Your task to perform on an android device: Open settings Image 0: 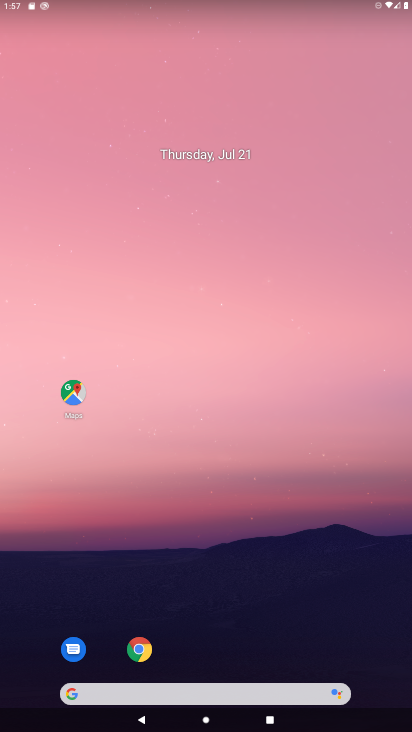
Step 0: drag from (291, 549) to (203, 0)
Your task to perform on an android device: Open settings Image 1: 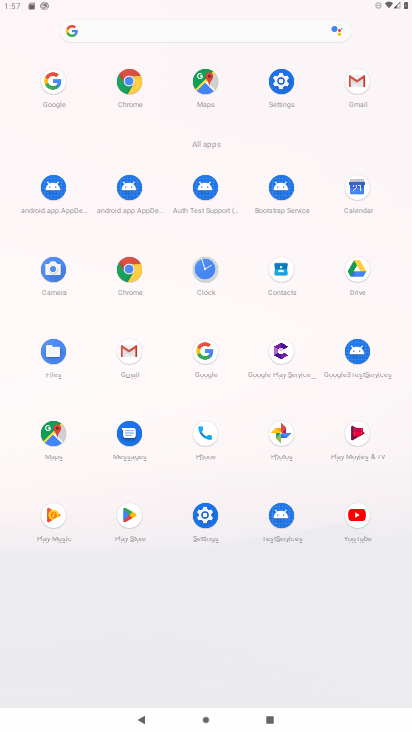
Step 1: click (281, 76)
Your task to perform on an android device: Open settings Image 2: 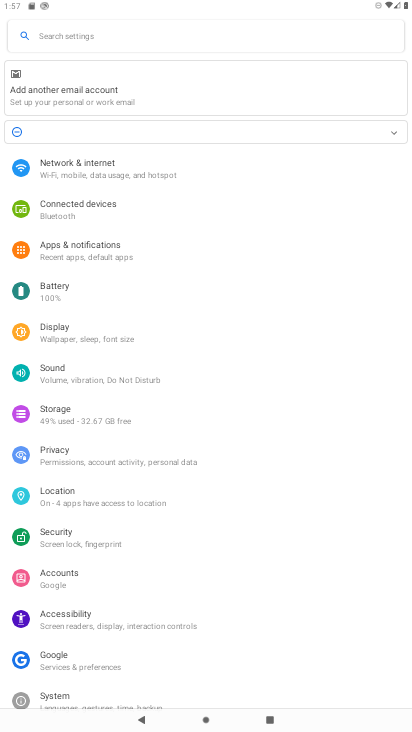
Step 2: task complete